Your task to perform on an android device: empty trash in the gmail app Image 0: 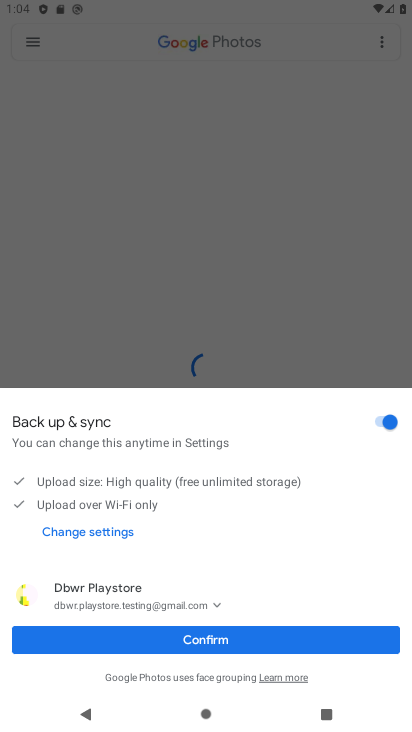
Step 0: press back button
Your task to perform on an android device: empty trash in the gmail app Image 1: 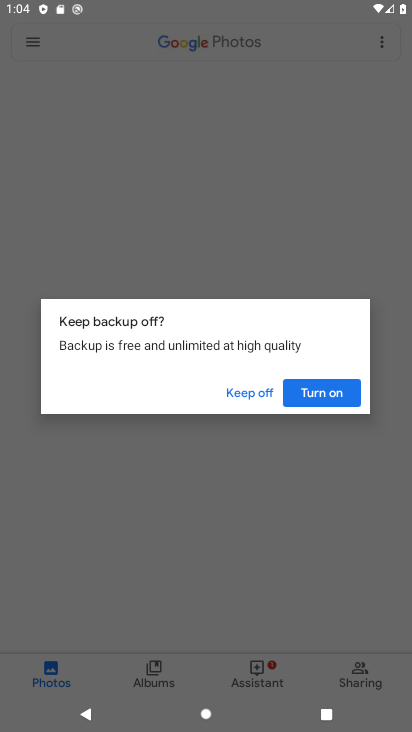
Step 1: press home button
Your task to perform on an android device: empty trash in the gmail app Image 2: 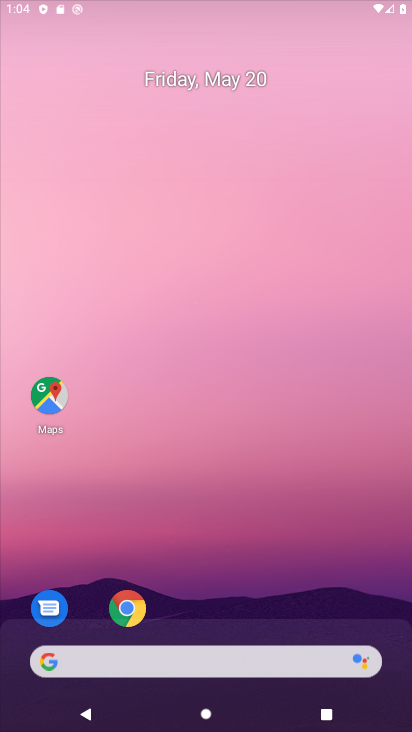
Step 2: drag from (181, 649) to (281, 74)
Your task to perform on an android device: empty trash in the gmail app Image 3: 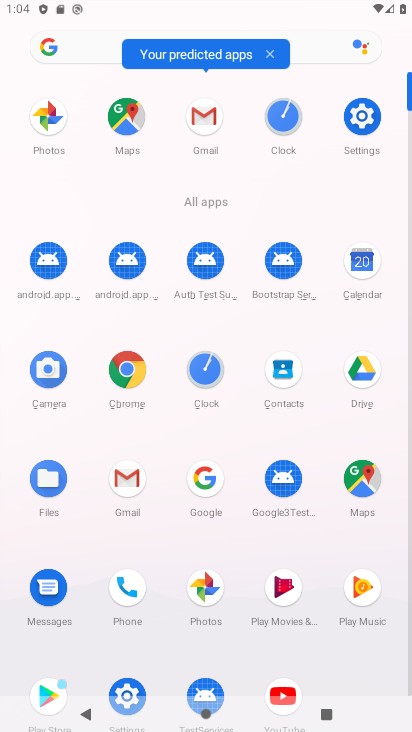
Step 3: click (203, 121)
Your task to perform on an android device: empty trash in the gmail app Image 4: 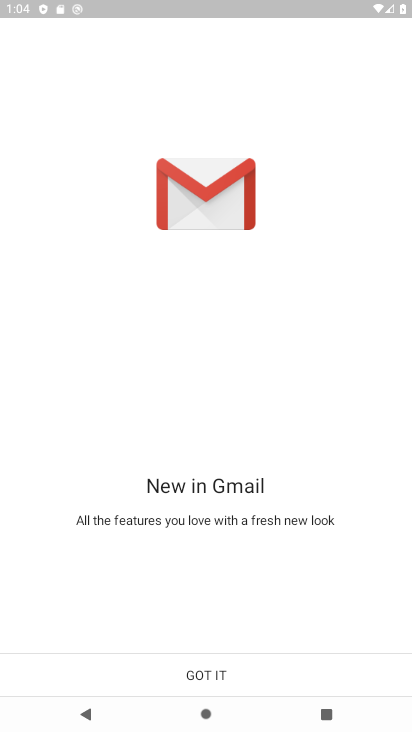
Step 4: click (199, 685)
Your task to perform on an android device: empty trash in the gmail app Image 5: 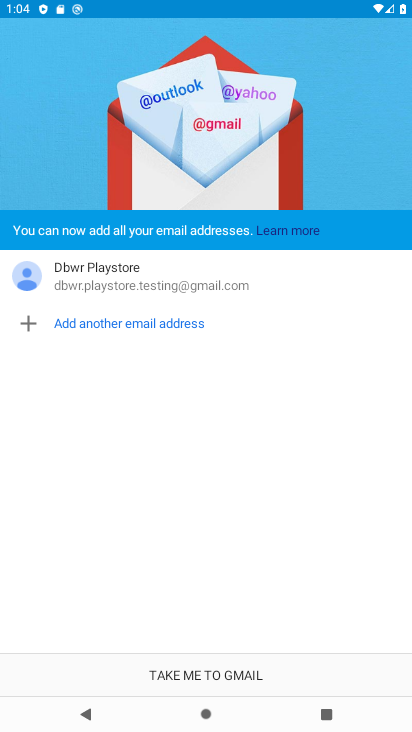
Step 5: click (236, 650)
Your task to perform on an android device: empty trash in the gmail app Image 6: 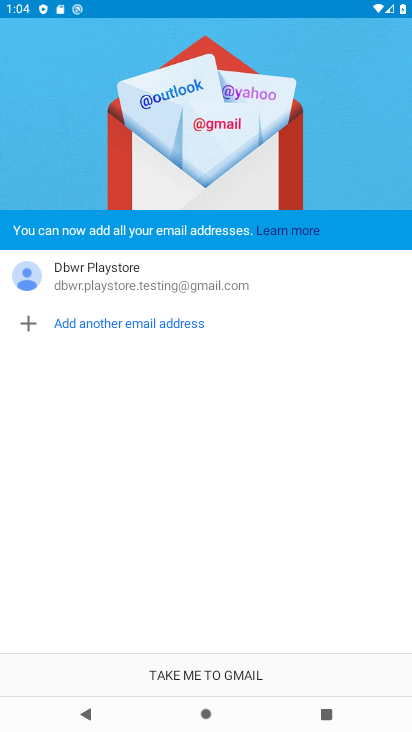
Step 6: click (228, 664)
Your task to perform on an android device: empty trash in the gmail app Image 7: 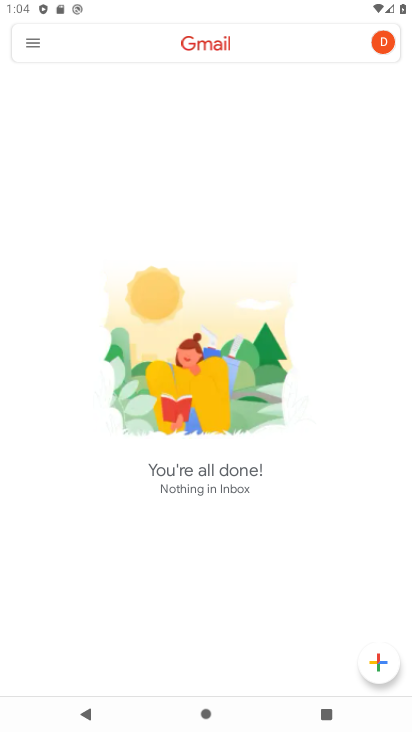
Step 7: click (31, 39)
Your task to perform on an android device: empty trash in the gmail app Image 8: 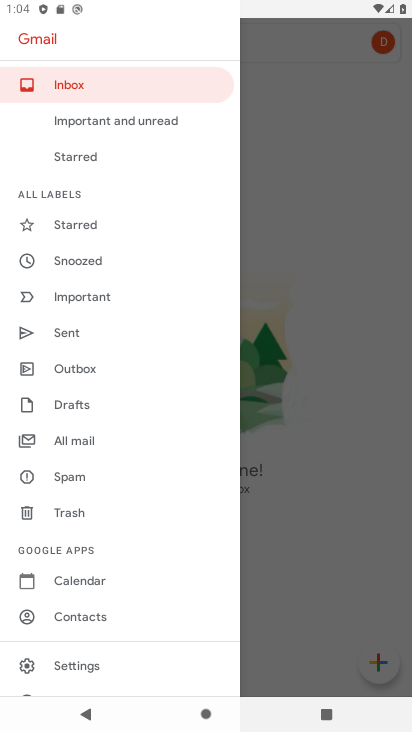
Step 8: click (76, 512)
Your task to perform on an android device: empty trash in the gmail app Image 9: 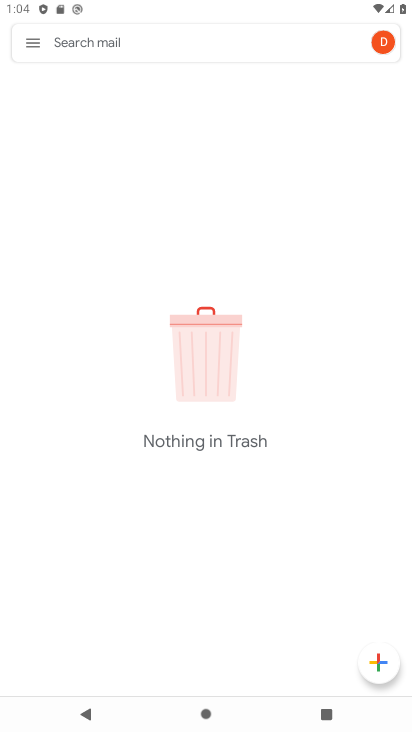
Step 9: task complete